Your task to perform on an android device: Go to Amazon Image 0: 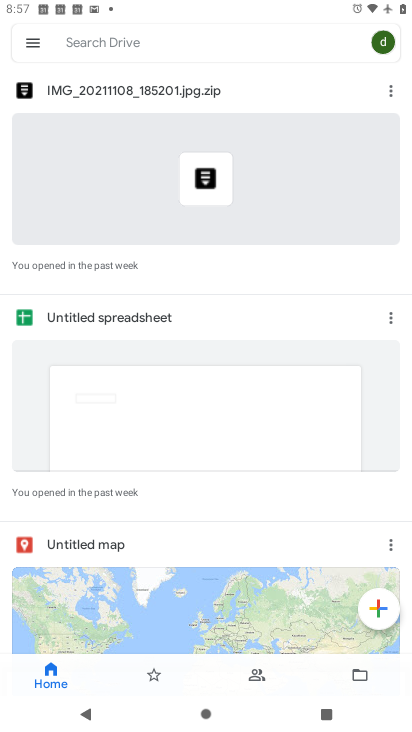
Step 0: press home button
Your task to perform on an android device: Go to Amazon Image 1: 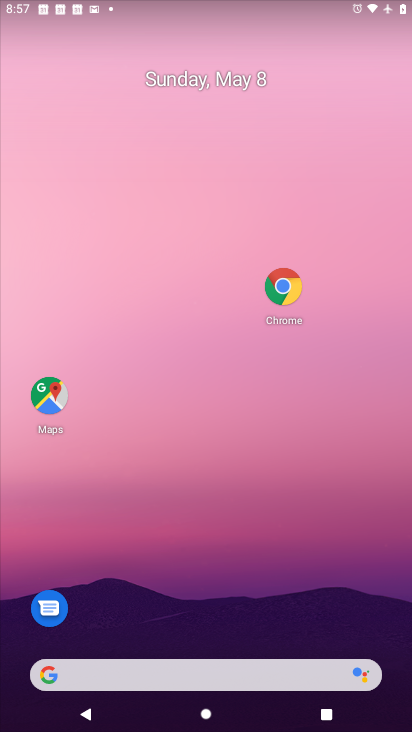
Step 1: drag from (175, 682) to (303, 95)
Your task to perform on an android device: Go to Amazon Image 2: 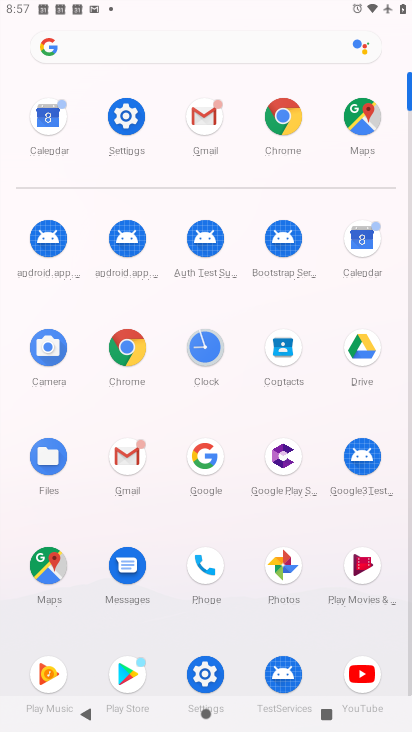
Step 2: click (297, 119)
Your task to perform on an android device: Go to Amazon Image 3: 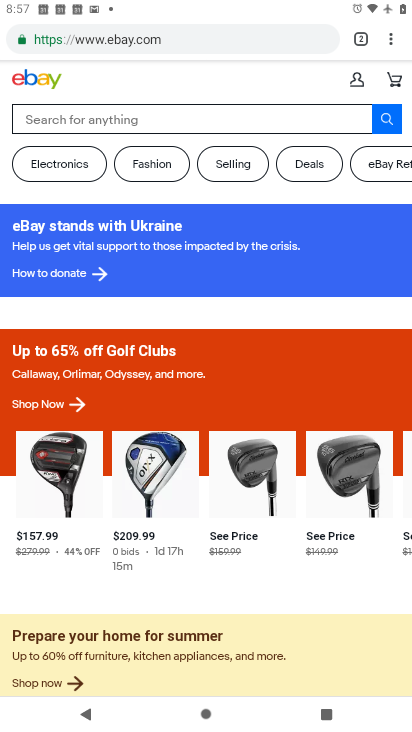
Step 3: drag from (390, 45) to (286, 83)
Your task to perform on an android device: Go to Amazon Image 4: 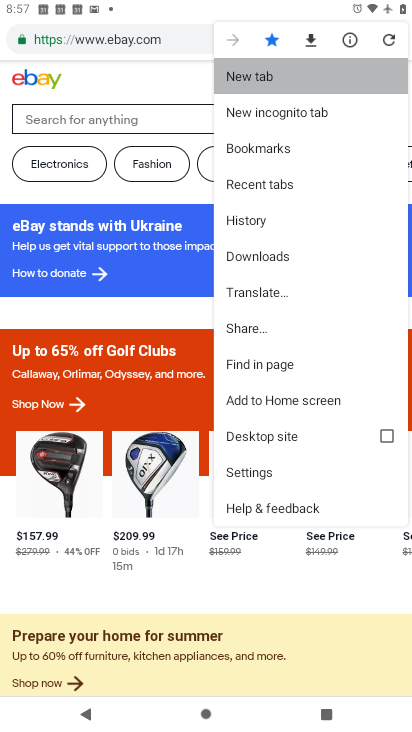
Step 4: click (286, 83)
Your task to perform on an android device: Go to Amazon Image 5: 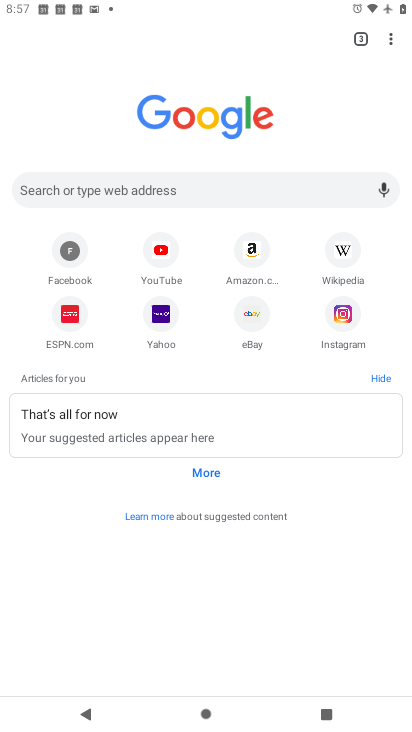
Step 5: click (251, 250)
Your task to perform on an android device: Go to Amazon Image 6: 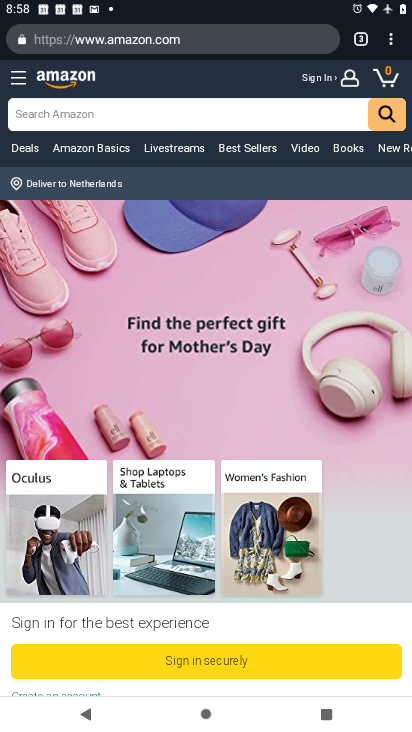
Step 6: task complete